Your task to perform on an android device: turn on improve location accuracy Image 0: 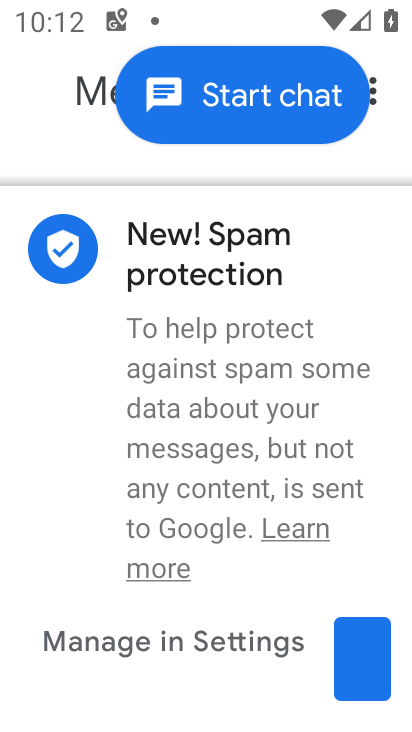
Step 0: press home button
Your task to perform on an android device: turn on improve location accuracy Image 1: 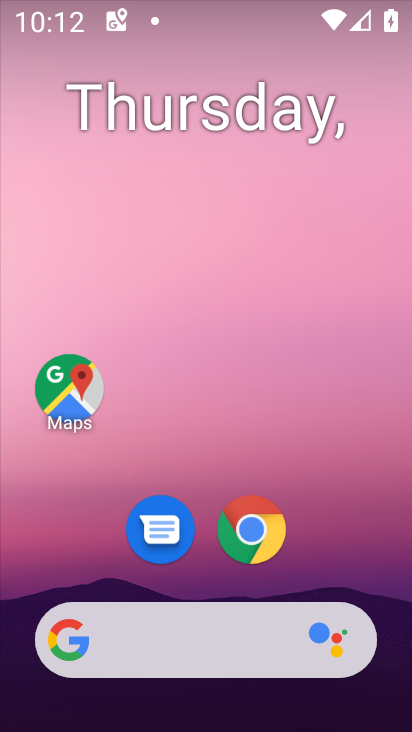
Step 1: drag from (310, 570) to (322, 57)
Your task to perform on an android device: turn on improve location accuracy Image 2: 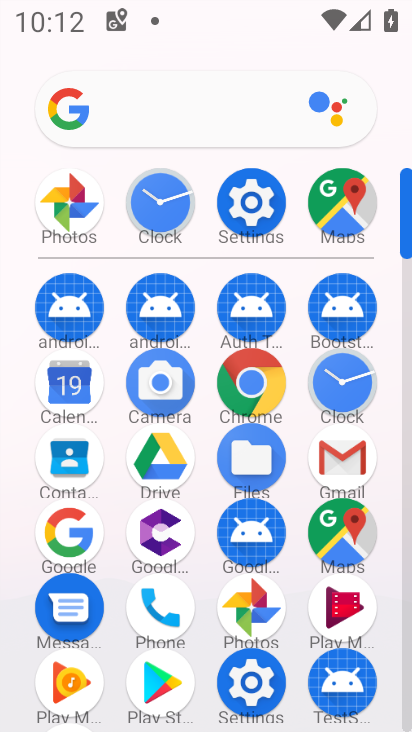
Step 2: click (251, 212)
Your task to perform on an android device: turn on improve location accuracy Image 3: 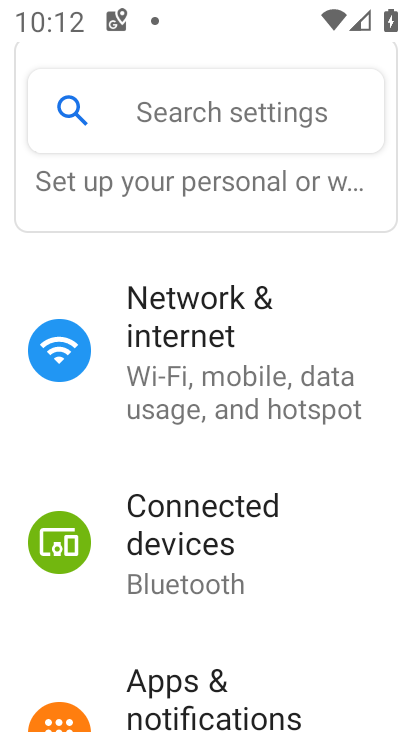
Step 3: drag from (194, 638) to (255, 360)
Your task to perform on an android device: turn on improve location accuracy Image 4: 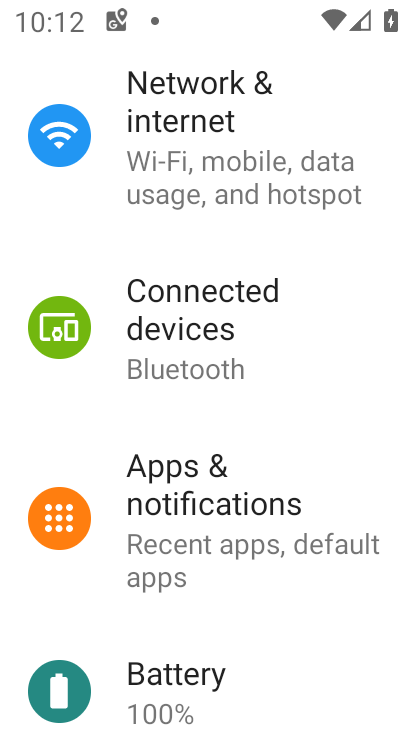
Step 4: drag from (307, 531) to (356, 290)
Your task to perform on an android device: turn on improve location accuracy Image 5: 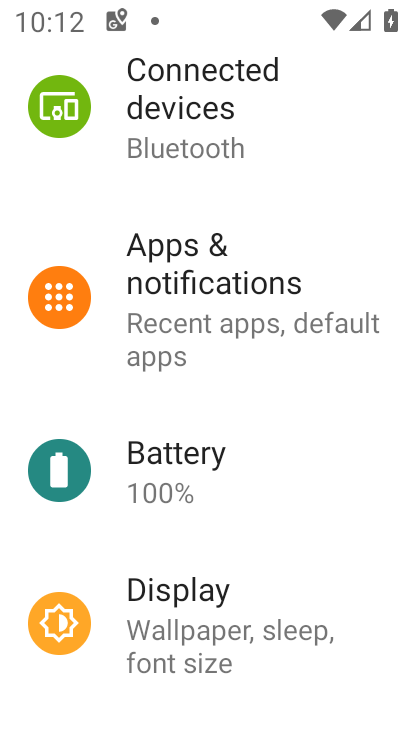
Step 5: drag from (273, 679) to (269, 383)
Your task to perform on an android device: turn on improve location accuracy Image 6: 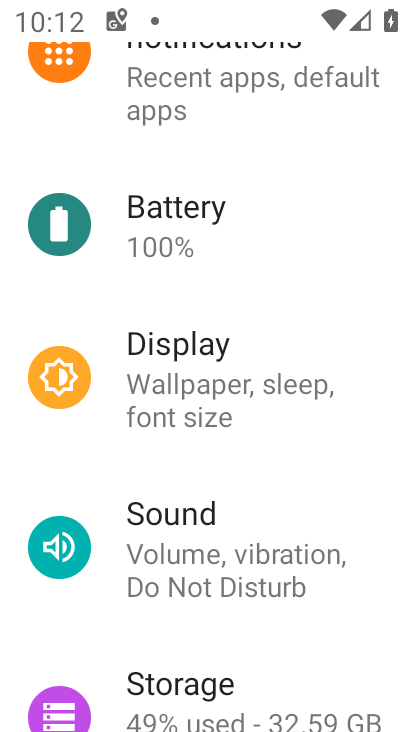
Step 6: drag from (249, 637) to (250, 414)
Your task to perform on an android device: turn on improve location accuracy Image 7: 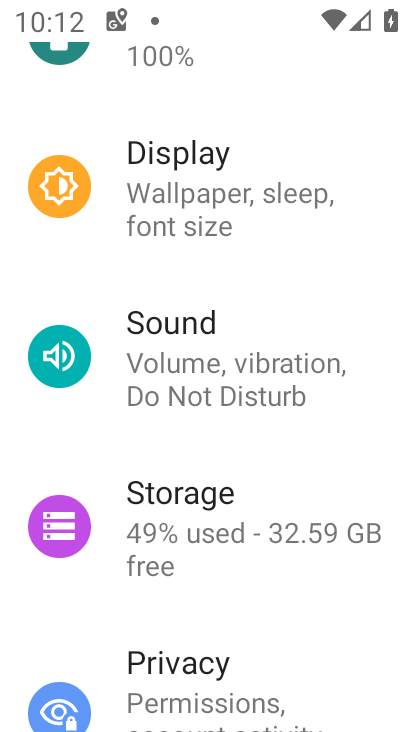
Step 7: drag from (250, 588) to (257, 423)
Your task to perform on an android device: turn on improve location accuracy Image 8: 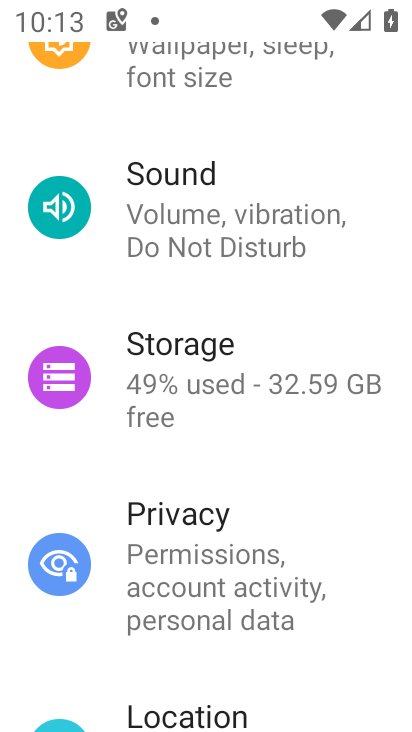
Step 8: drag from (270, 636) to (273, 271)
Your task to perform on an android device: turn on improve location accuracy Image 9: 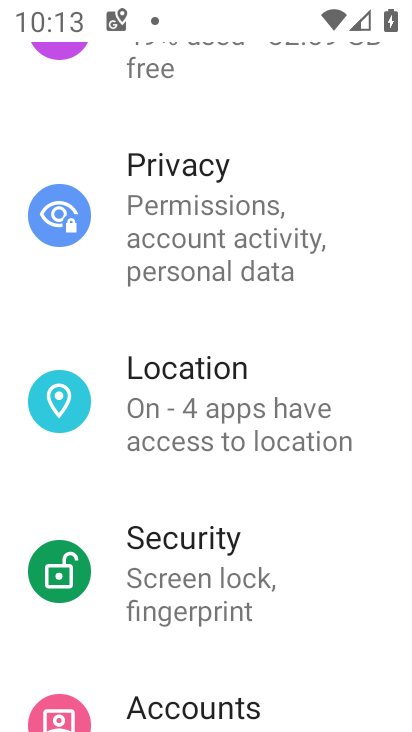
Step 9: click (195, 434)
Your task to perform on an android device: turn on improve location accuracy Image 10: 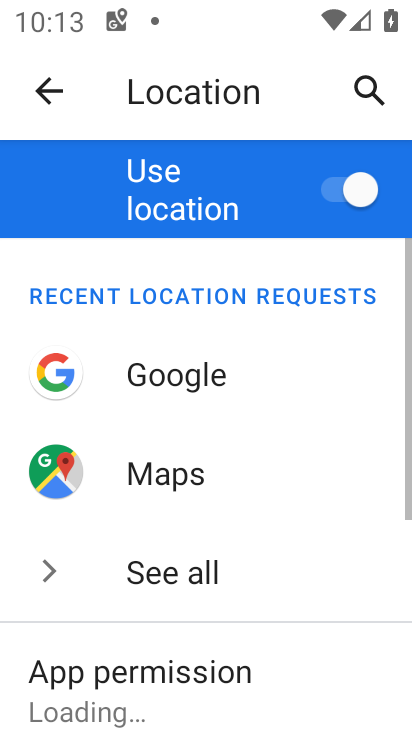
Step 10: drag from (253, 654) to (246, 239)
Your task to perform on an android device: turn on improve location accuracy Image 11: 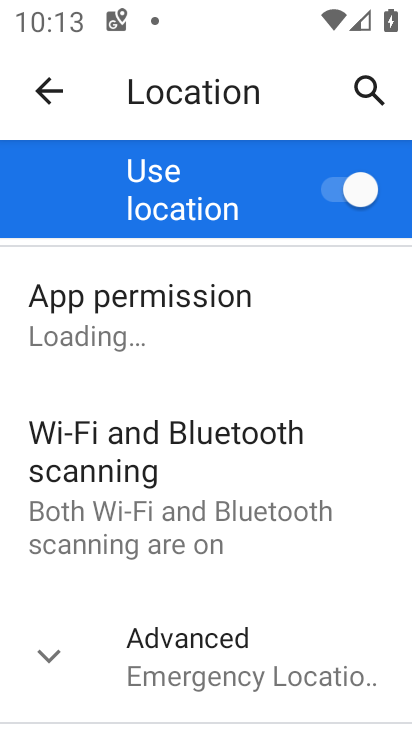
Step 11: drag from (248, 616) to (242, 349)
Your task to perform on an android device: turn on improve location accuracy Image 12: 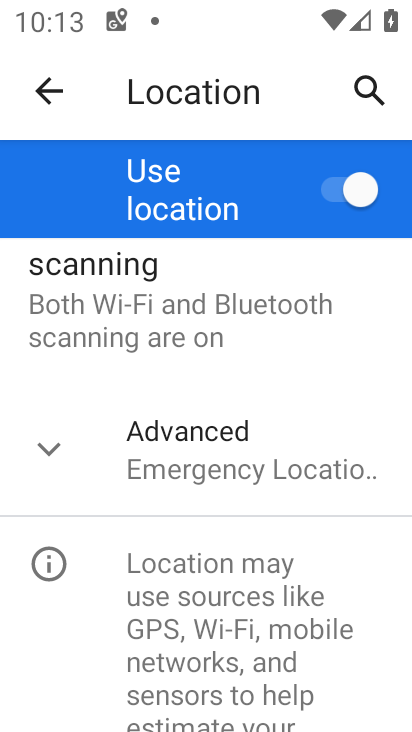
Step 12: click (217, 461)
Your task to perform on an android device: turn on improve location accuracy Image 13: 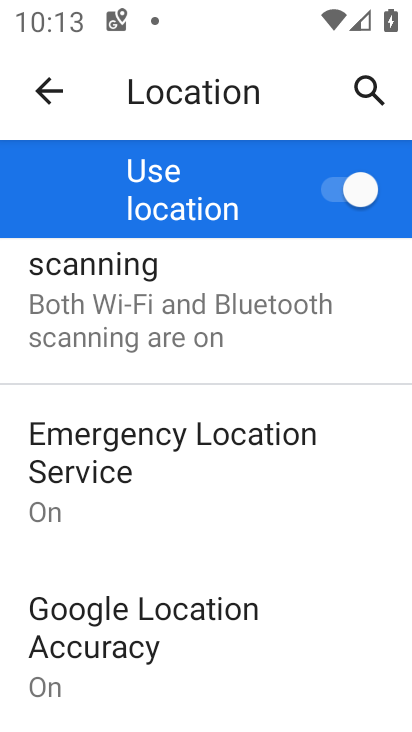
Step 13: click (195, 638)
Your task to perform on an android device: turn on improve location accuracy Image 14: 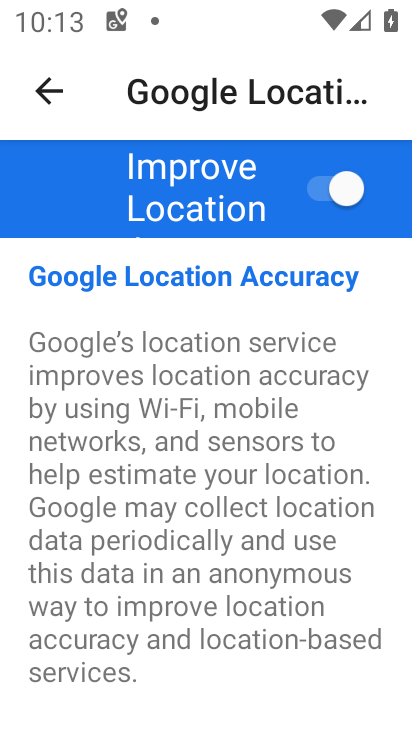
Step 14: task complete